Your task to perform on an android device: Search for Italian restaurants on Maps Image 0: 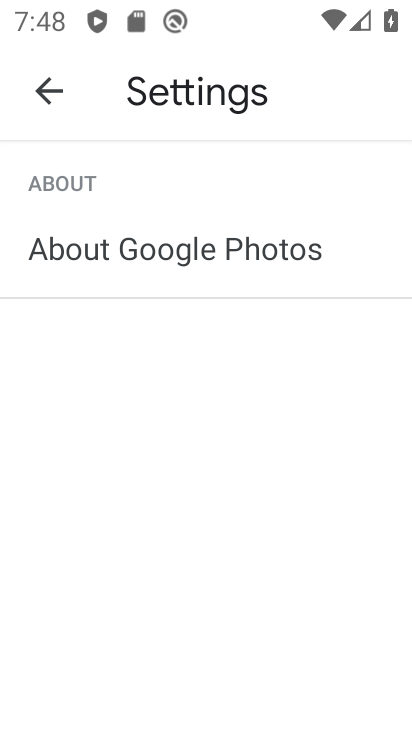
Step 0: press home button
Your task to perform on an android device: Search for Italian restaurants on Maps Image 1: 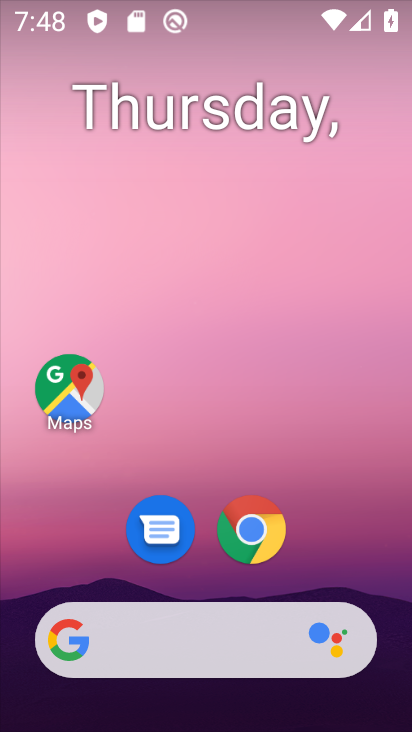
Step 1: drag from (214, 723) to (141, 44)
Your task to perform on an android device: Search for Italian restaurants on Maps Image 2: 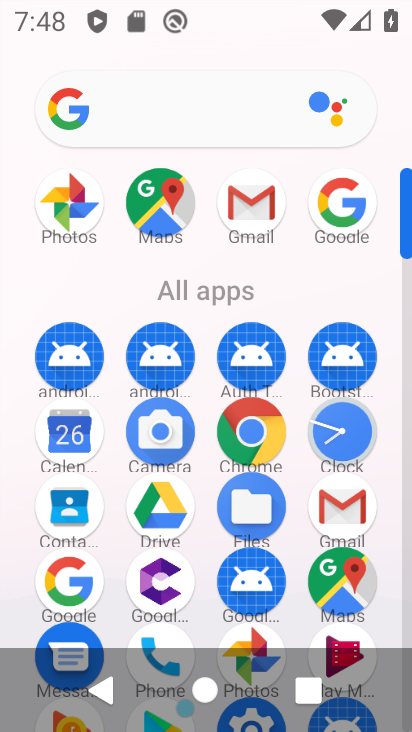
Step 2: click (340, 577)
Your task to perform on an android device: Search for Italian restaurants on Maps Image 3: 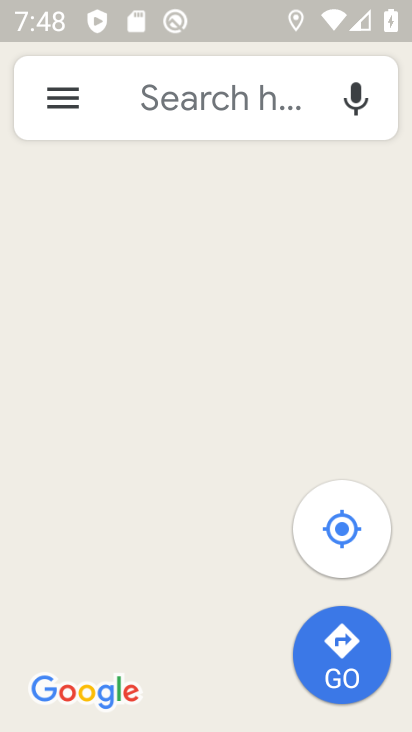
Step 3: click (222, 107)
Your task to perform on an android device: Search for Italian restaurants on Maps Image 4: 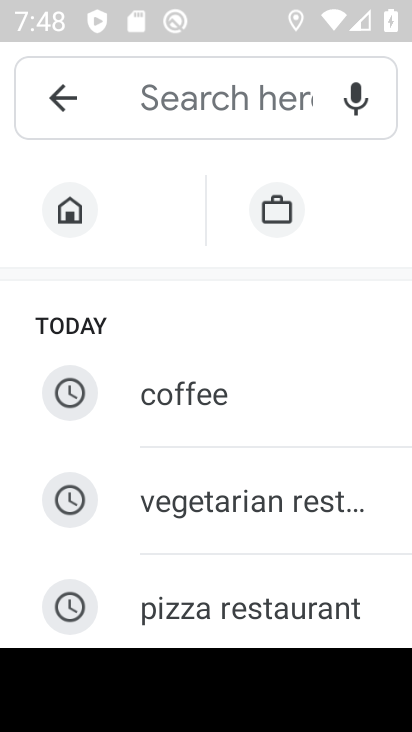
Step 4: type "Italian restaurants"
Your task to perform on an android device: Search for Italian restaurants on Maps Image 5: 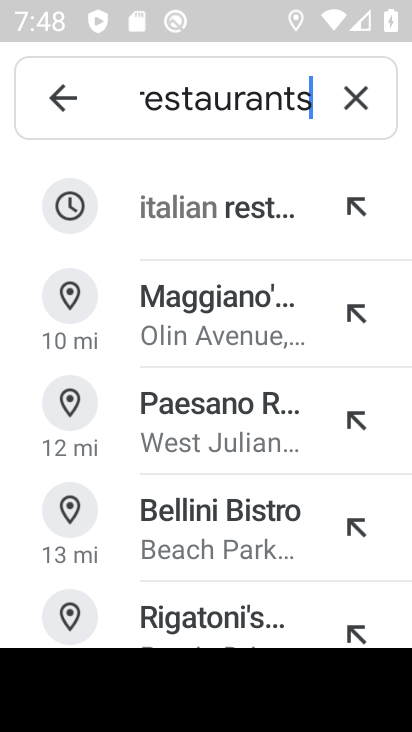
Step 5: click (169, 212)
Your task to perform on an android device: Search for Italian restaurants on Maps Image 6: 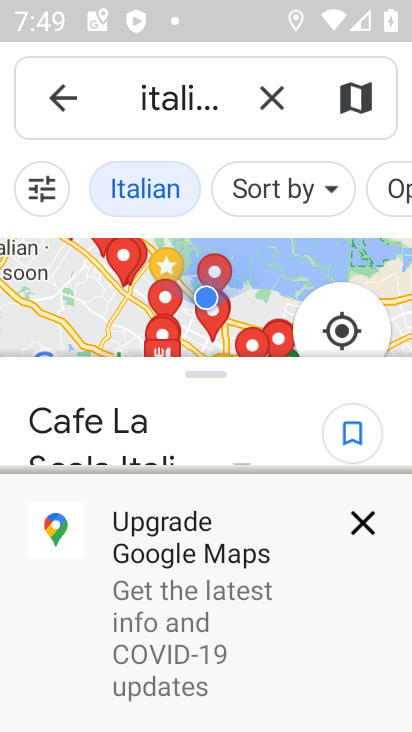
Step 6: task complete